Your task to perform on an android device: Show me popular videos on Youtube Image 0: 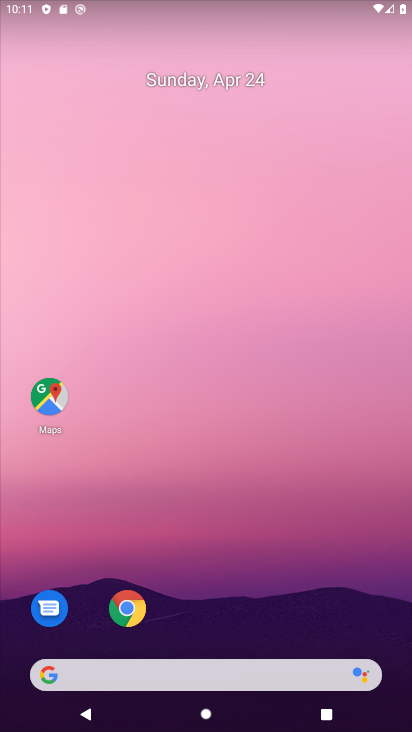
Step 0: drag from (192, 419) to (162, 7)
Your task to perform on an android device: Show me popular videos on Youtube Image 1: 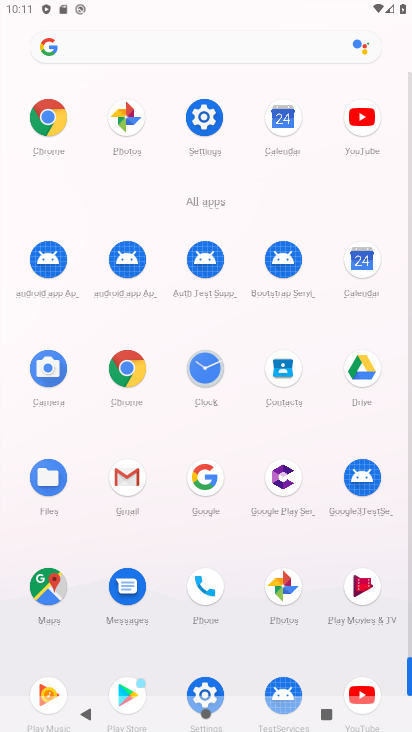
Step 1: drag from (15, 509) to (2, 205)
Your task to perform on an android device: Show me popular videos on Youtube Image 2: 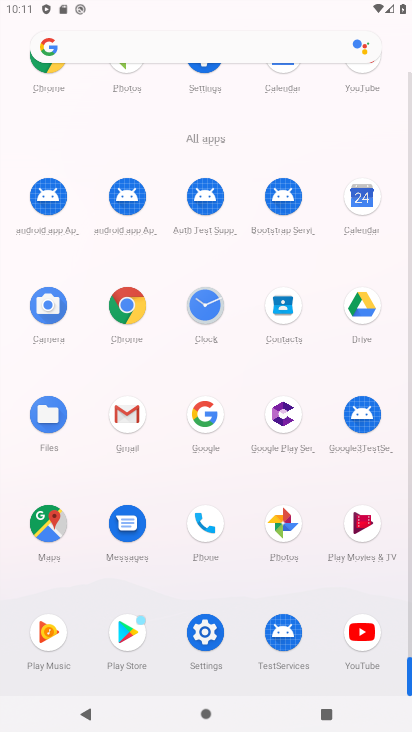
Step 2: click (359, 632)
Your task to perform on an android device: Show me popular videos on Youtube Image 3: 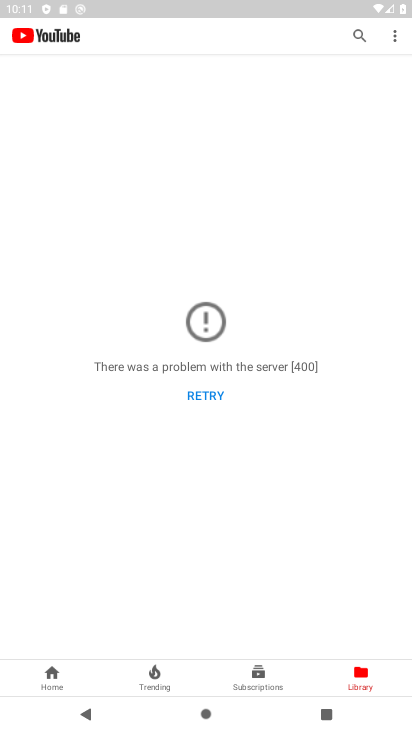
Step 3: click (366, 683)
Your task to perform on an android device: Show me popular videos on Youtube Image 4: 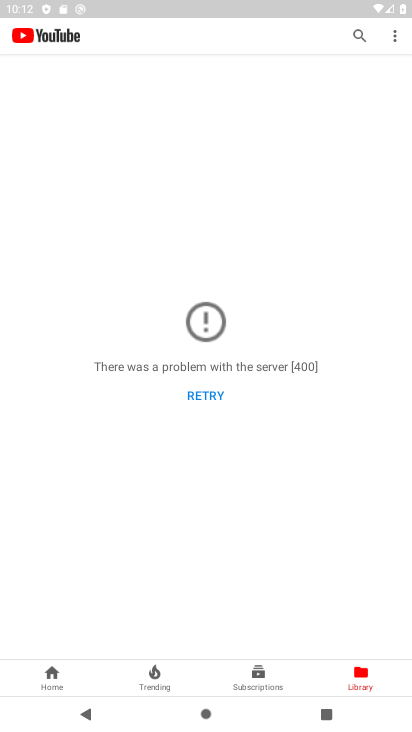
Step 4: drag from (229, 501) to (292, 210)
Your task to perform on an android device: Show me popular videos on Youtube Image 5: 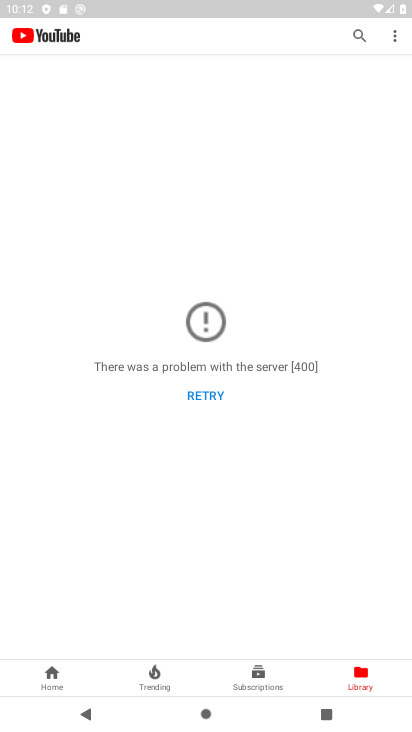
Step 5: click (202, 393)
Your task to perform on an android device: Show me popular videos on Youtube Image 6: 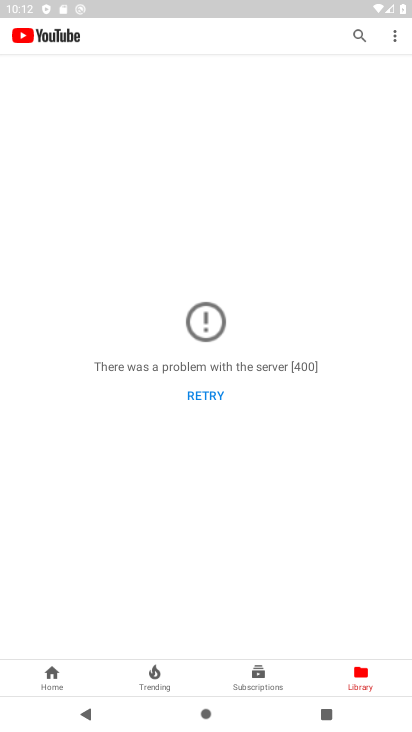
Step 6: task complete